Your task to perform on an android device: toggle improve location accuracy Image 0: 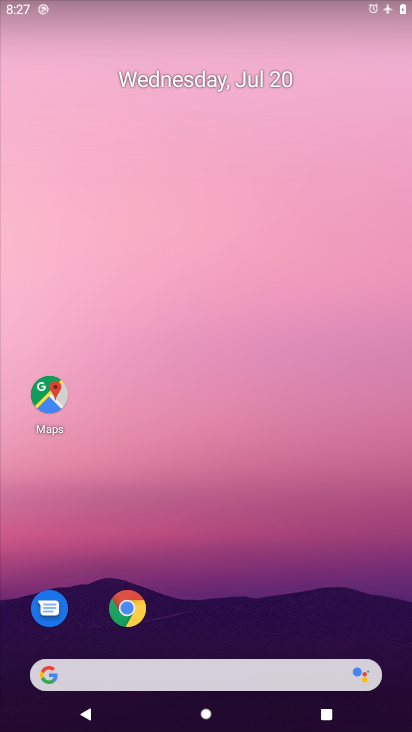
Step 0: drag from (219, 608) to (268, 74)
Your task to perform on an android device: toggle improve location accuracy Image 1: 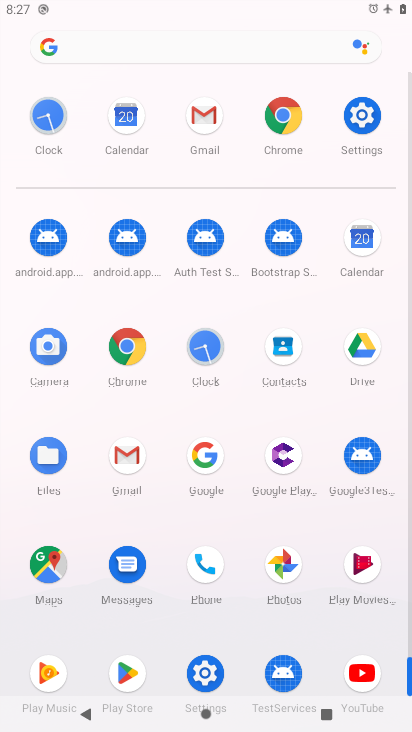
Step 1: click (367, 147)
Your task to perform on an android device: toggle improve location accuracy Image 2: 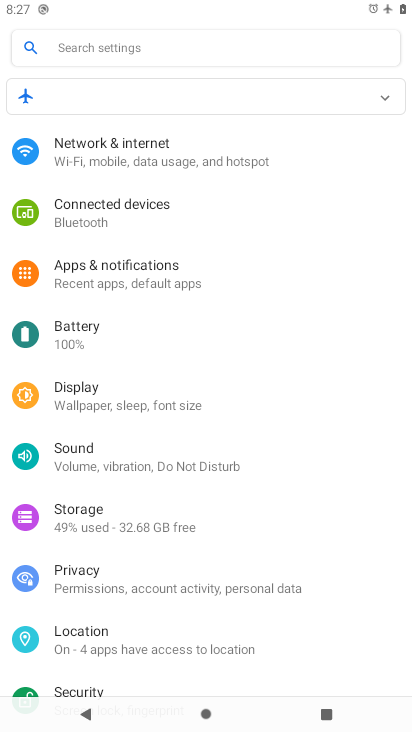
Step 2: click (125, 648)
Your task to perform on an android device: toggle improve location accuracy Image 3: 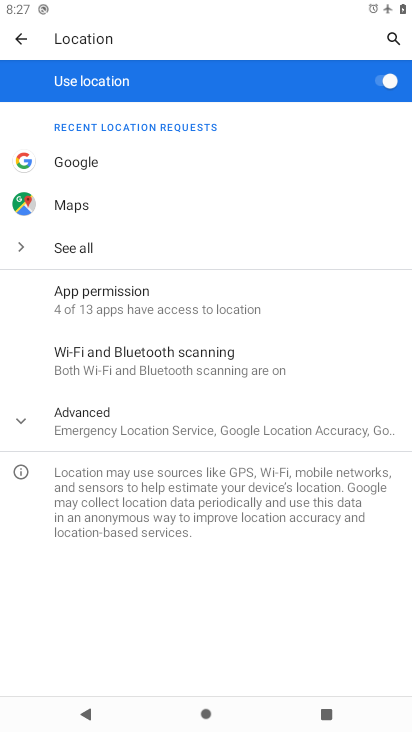
Step 3: click (126, 432)
Your task to perform on an android device: toggle improve location accuracy Image 4: 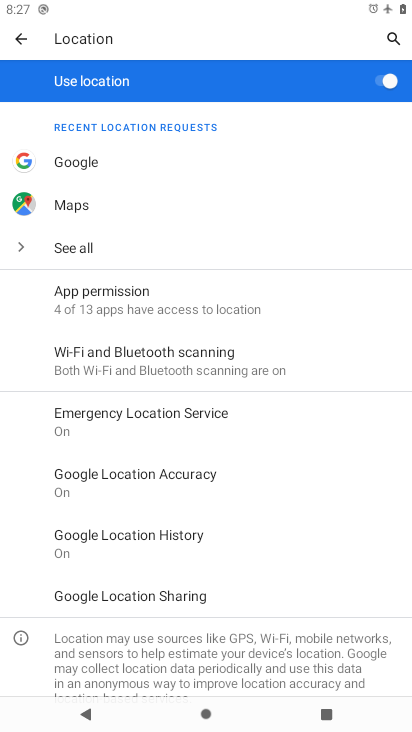
Step 4: click (138, 493)
Your task to perform on an android device: toggle improve location accuracy Image 5: 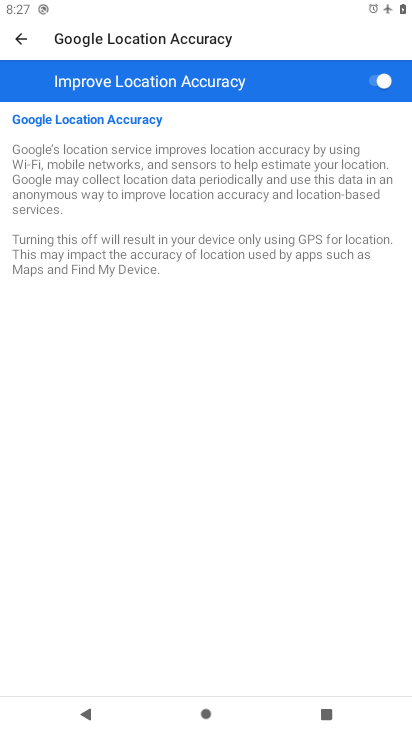
Step 5: click (366, 86)
Your task to perform on an android device: toggle improve location accuracy Image 6: 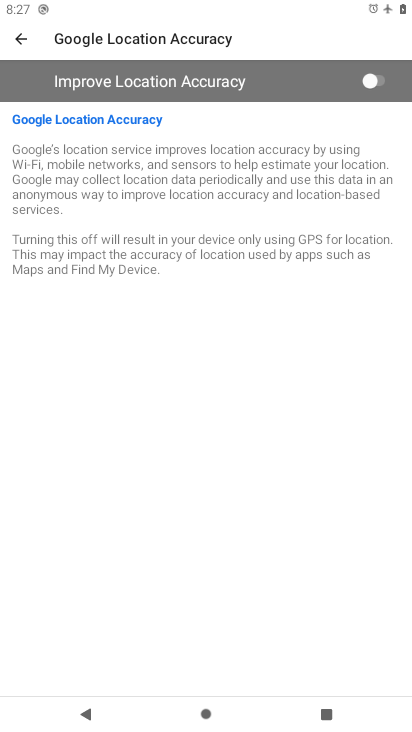
Step 6: task complete